Your task to perform on an android device: turn off location Image 0: 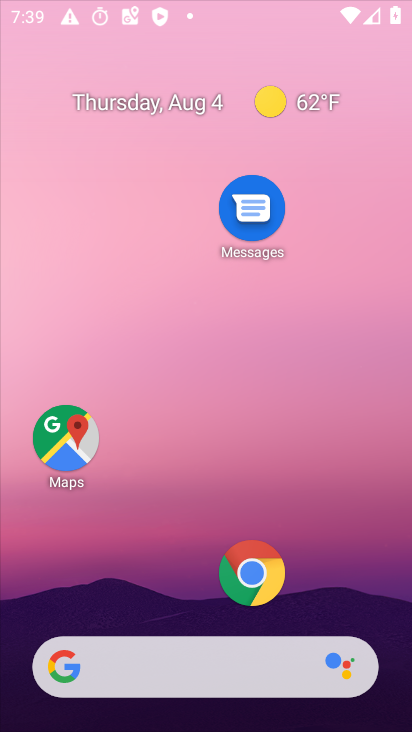
Step 0: press home button
Your task to perform on an android device: turn off location Image 1: 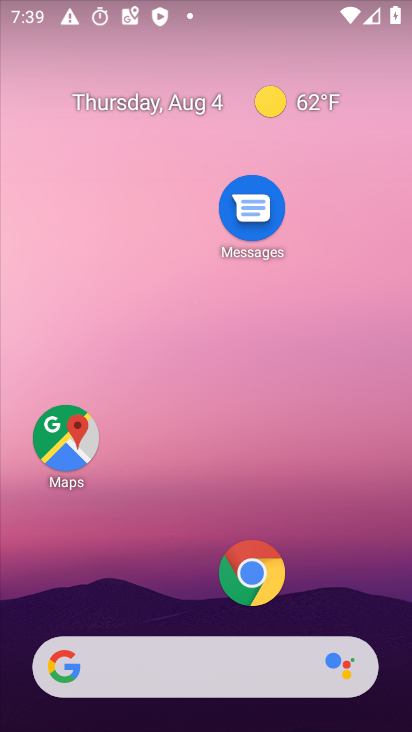
Step 1: drag from (174, 597) to (186, 236)
Your task to perform on an android device: turn off location Image 2: 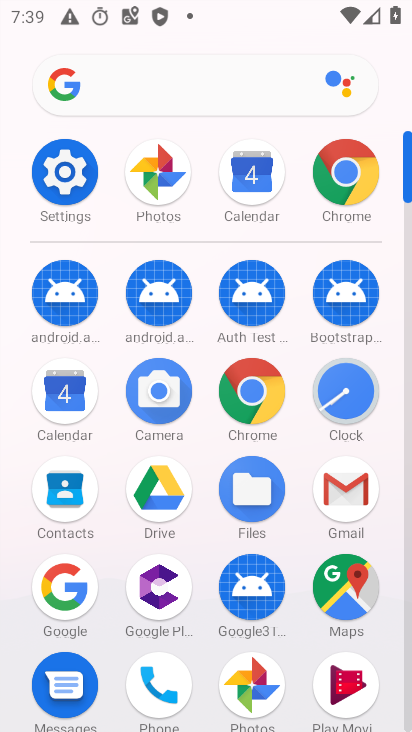
Step 2: click (59, 189)
Your task to perform on an android device: turn off location Image 3: 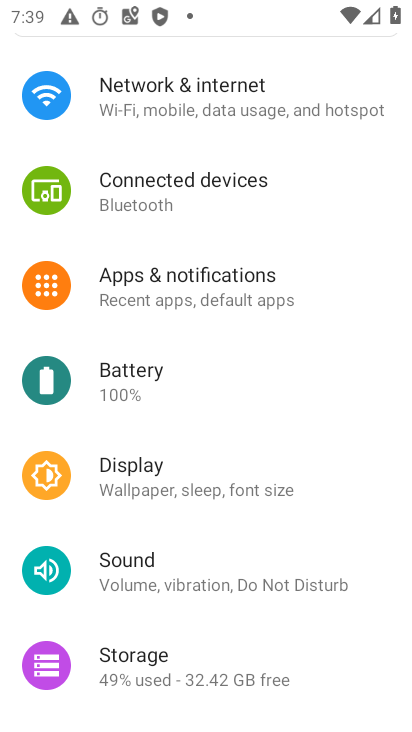
Step 3: drag from (244, 376) to (240, 146)
Your task to perform on an android device: turn off location Image 4: 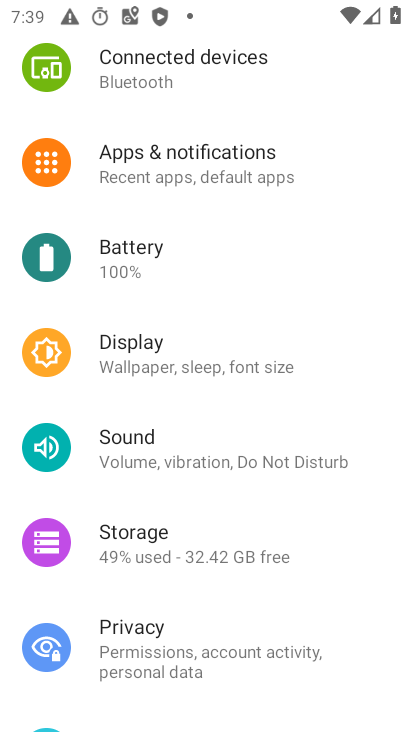
Step 4: drag from (232, 548) to (246, 141)
Your task to perform on an android device: turn off location Image 5: 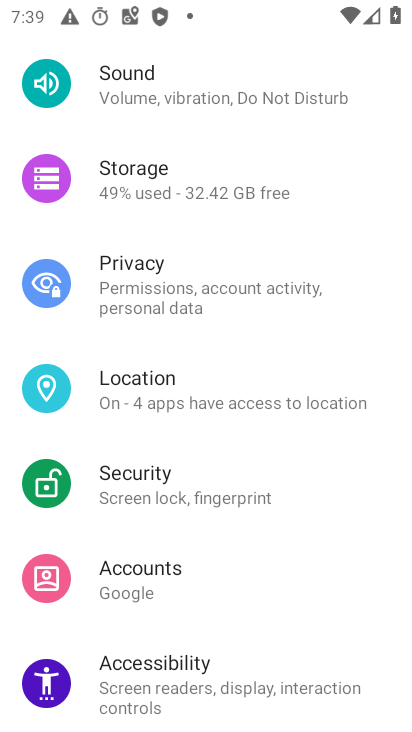
Step 5: click (126, 395)
Your task to perform on an android device: turn off location Image 6: 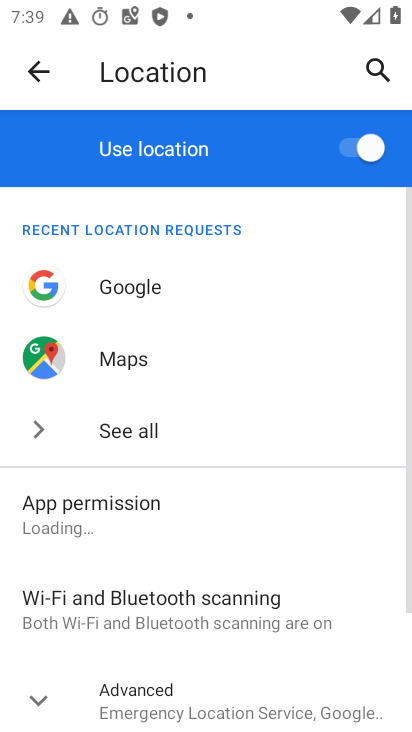
Step 6: click (370, 148)
Your task to perform on an android device: turn off location Image 7: 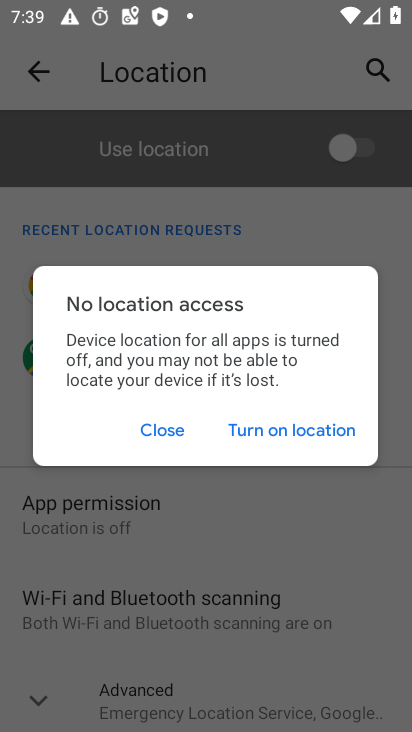
Step 7: task complete